Your task to perform on an android device: Open Chrome and go to the settings page Image 0: 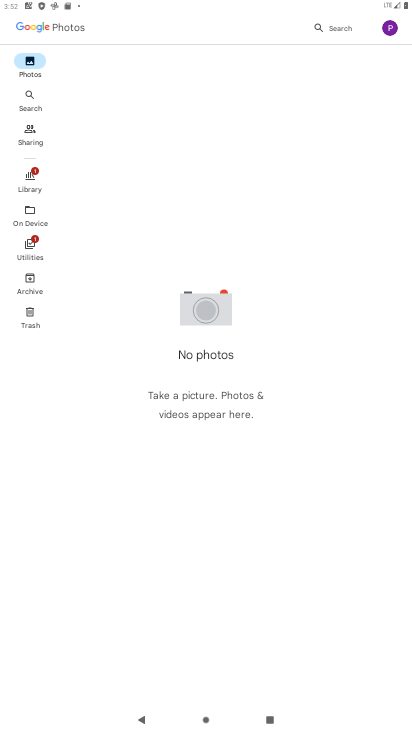
Step 0: press home button
Your task to perform on an android device: Open Chrome and go to the settings page Image 1: 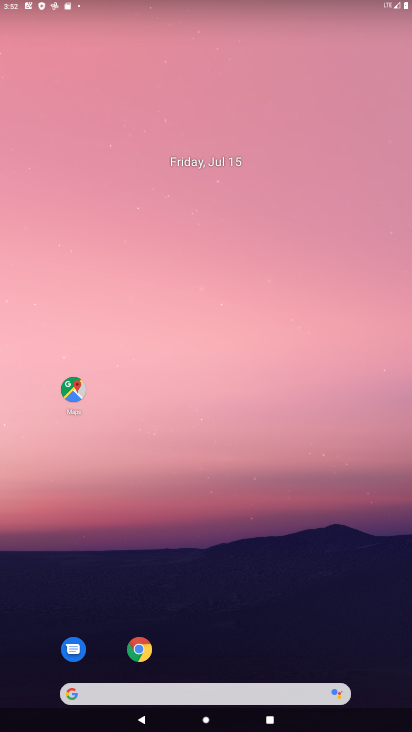
Step 1: drag from (304, 596) to (252, 184)
Your task to perform on an android device: Open Chrome and go to the settings page Image 2: 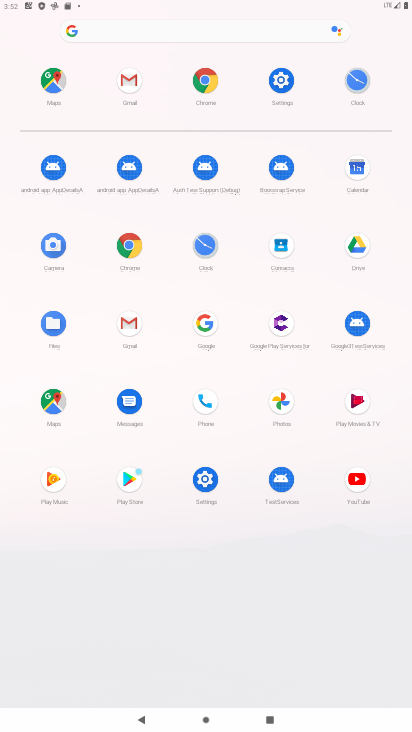
Step 2: click (132, 246)
Your task to perform on an android device: Open Chrome and go to the settings page Image 3: 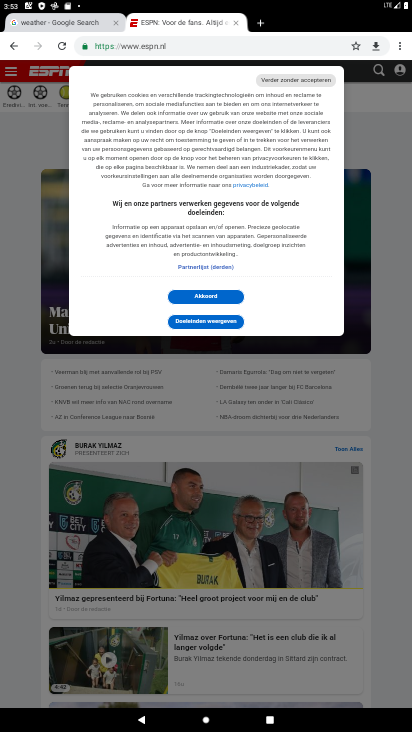
Step 3: task complete